Your task to perform on an android device: change timer sound Image 0: 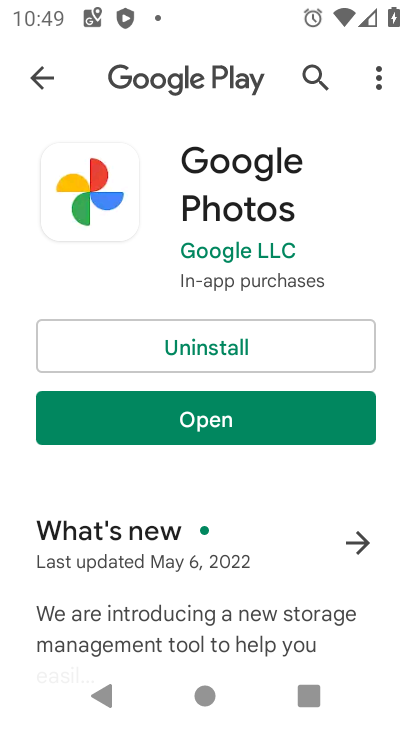
Step 0: press home button
Your task to perform on an android device: change timer sound Image 1: 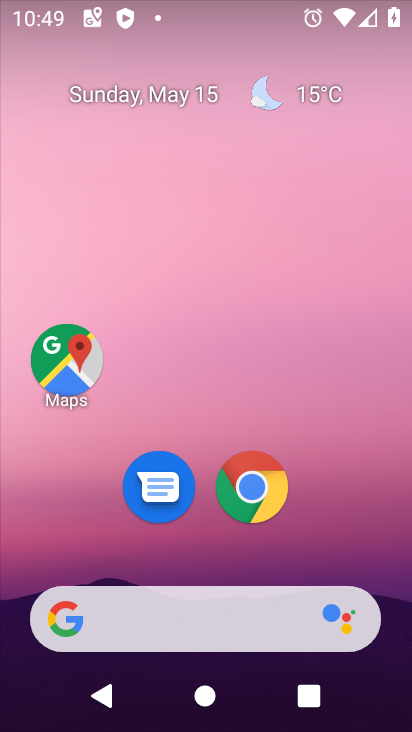
Step 1: drag from (395, 612) to (335, 29)
Your task to perform on an android device: change timer sound Image 2: 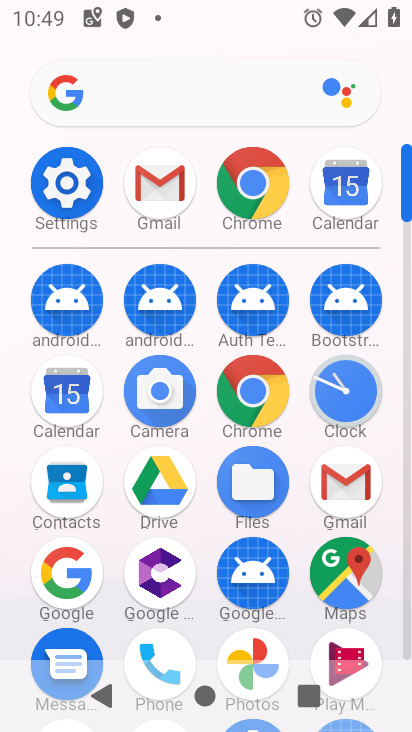
Step 2: click (341, 392)
Your task to perform on an android device: change timer sound Image 3: 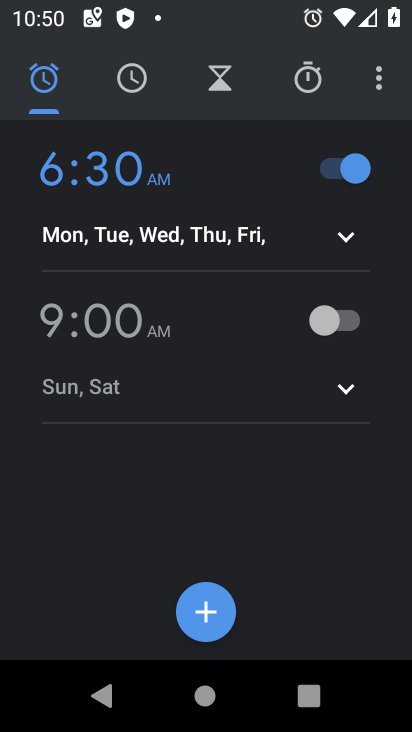
Step 3: click (382, 78)
Your task to perform on an android device: change timer sound Image 4: 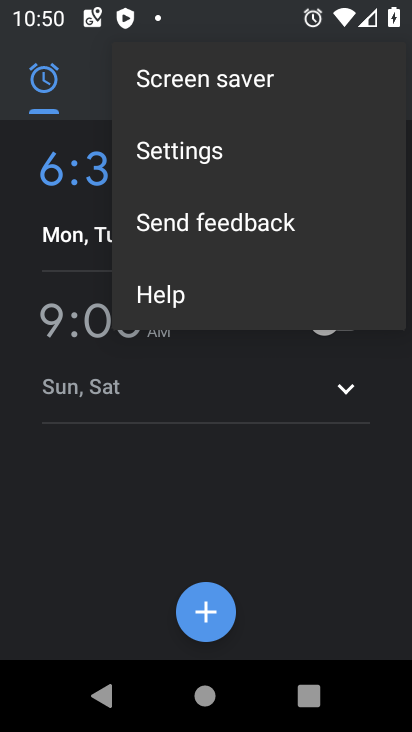
Step 4: click (193, 152)
Your task to perform on an android device: change timer sound Image 5: 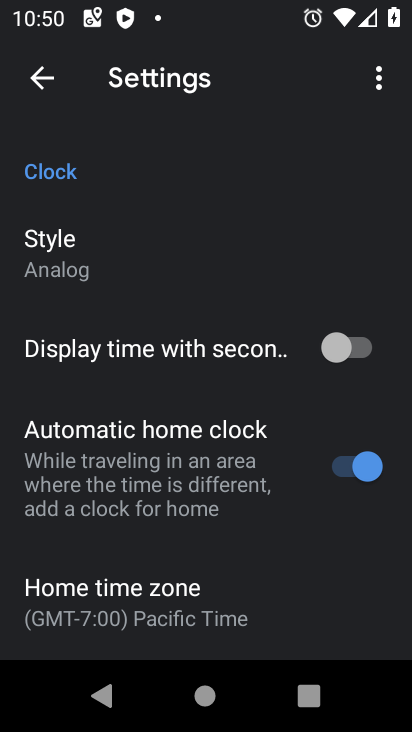
Step 5: drag from (295, 597) to (250, 189)
Your task to perform on an android device: change timer sound Image 6: 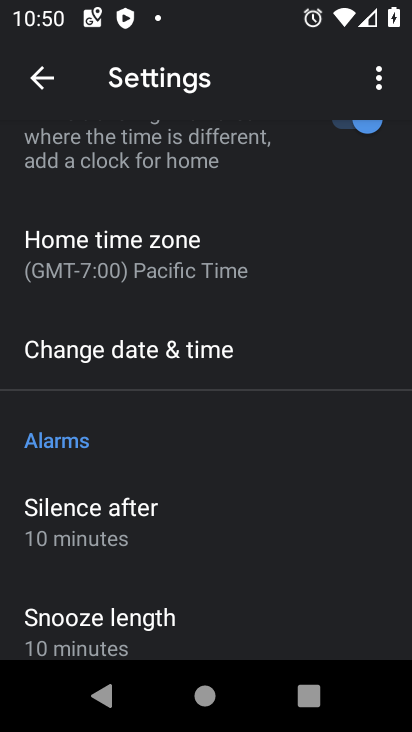
Step 6: drag from (226, 572) to (261, 205)
Your task to perform on an android device: change timer sound Image 7: 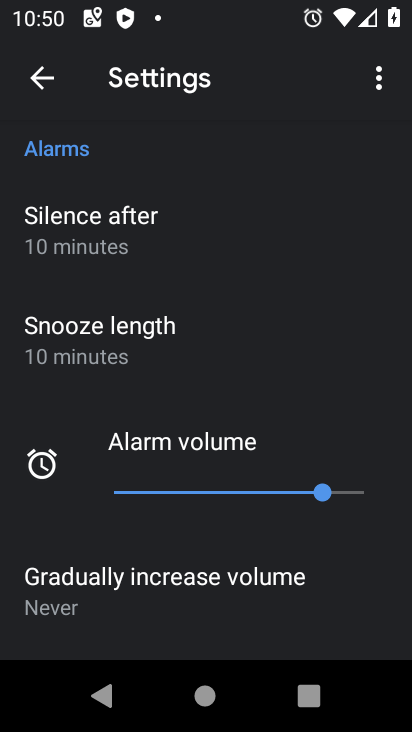
Step 7: drag from (237, 553) to (239, 222)
Your task to perform on an android device: change timer sound Image 8: 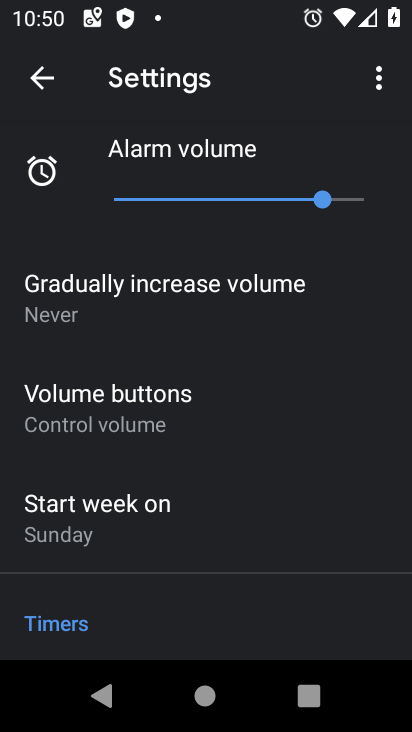
Step 8: drag from (200, 526) to (248, 146)
Your task to perform on an android device: change timer sound Image 9: 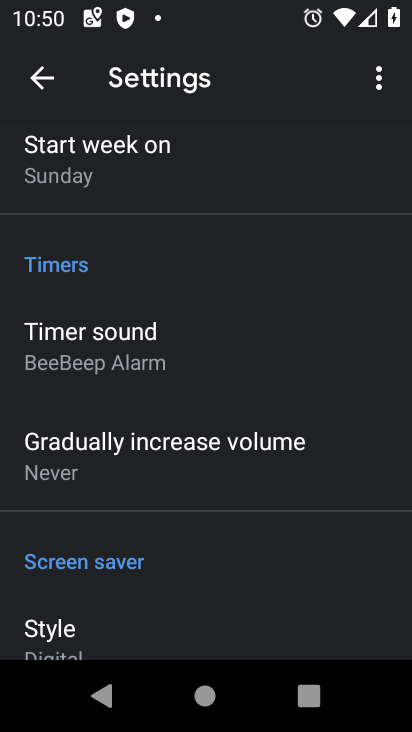
Step 9: click (104, 350)
Your task to perform on an android device: change timer sound Image 10: 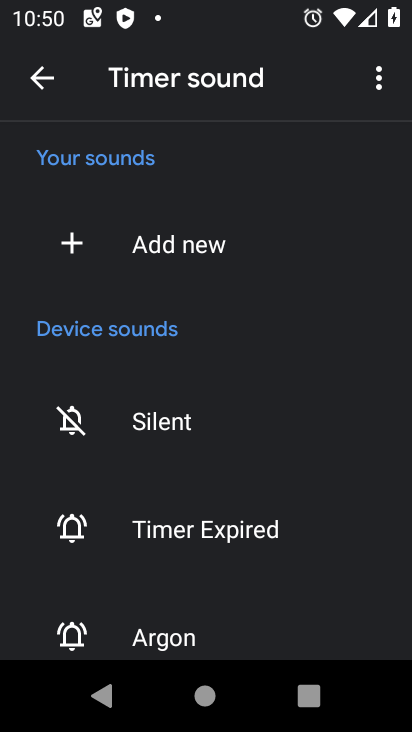
Step 10: drag from (306, 620) to (293, 139)
Your task to perform on an android device: change timer sound Image 11: 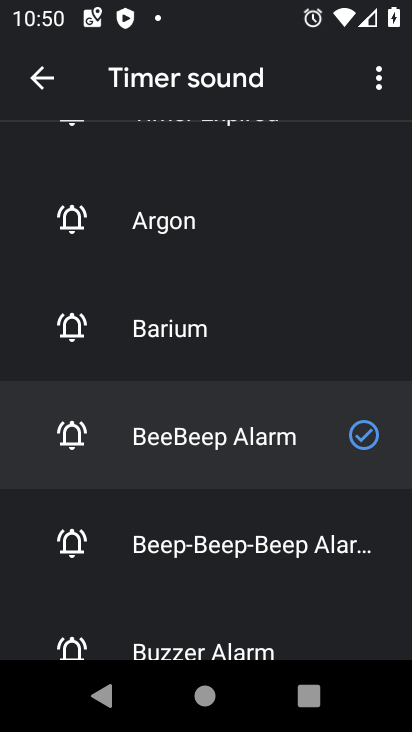
Step 11: drag from (261, 562) to (243, 163)
Your task to perform on an android device: change timer sound Image 12: 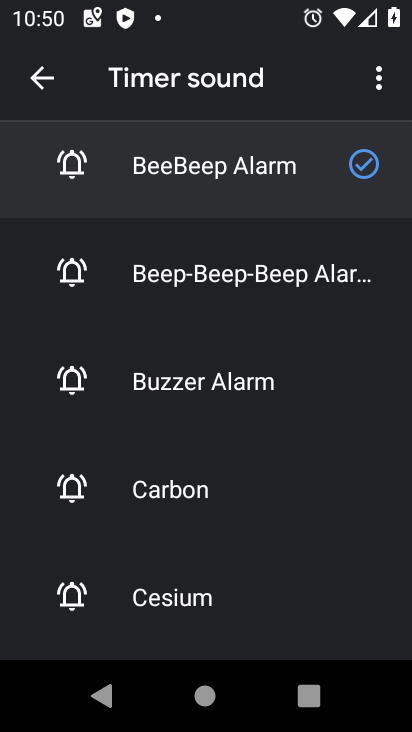
Step 12: click (182, 384)
Your task to perform on an android device: change timer sound Image 13: 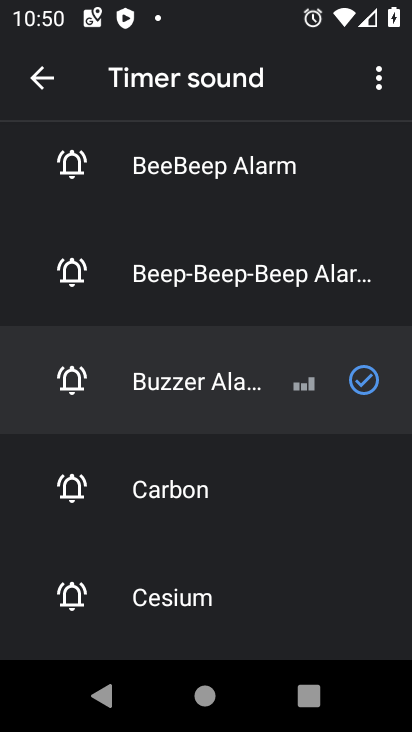
Step 13: task complete